Your task to perform on an android device: Open Google Chrome and click the shortcut for Amazon.com Image 0: 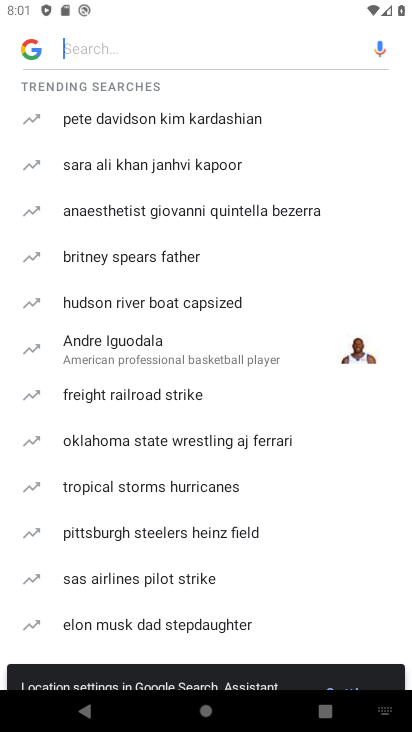
Step 0: press home button
Your task to perform on an android device: Open Google Chrome and click the shortcut for Amazon.com Image 1: 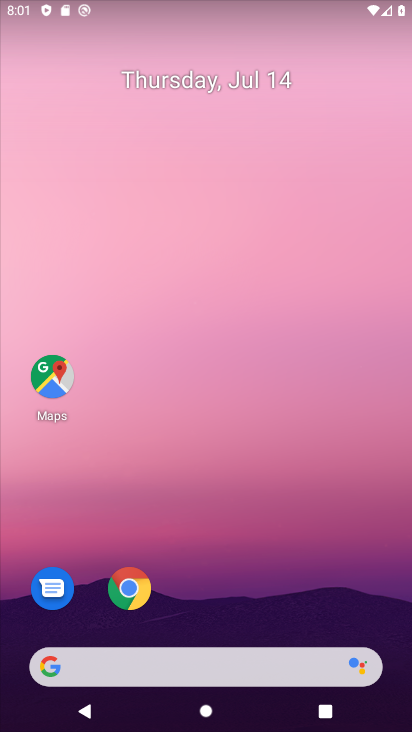
Step 1: drag from (267, 606) to (246, 0)
Your task to perform on an android device: Open Google Chrome and click the shortcut for Amazon.com Image 2: 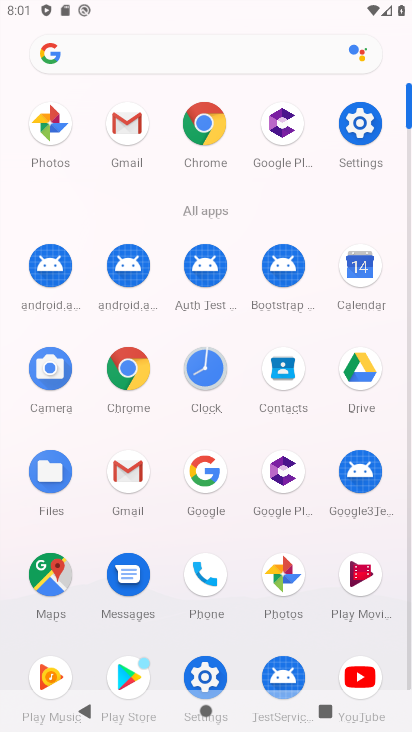
Step 2: click (140, 395)
Your task to perform on an android device: Open Google Chrome and click the shortcut for Amazon.com Image 3: 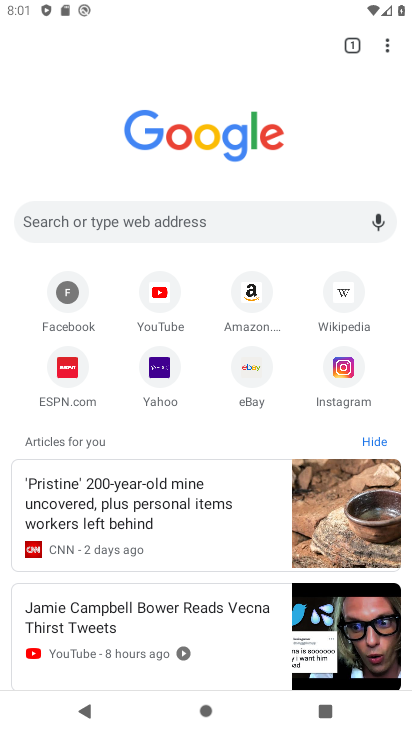
Step 3: click (255, 302)
Your task to perform on an android device: Open Google Chrome and click the shortcut for Amazon.com Image 4: 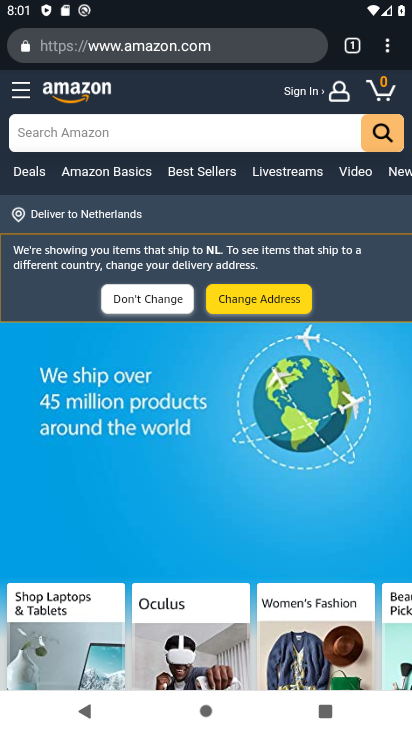
Step 4: task complete